Your task to perform on an android device: refresh tabs in the chrome app Image 0: 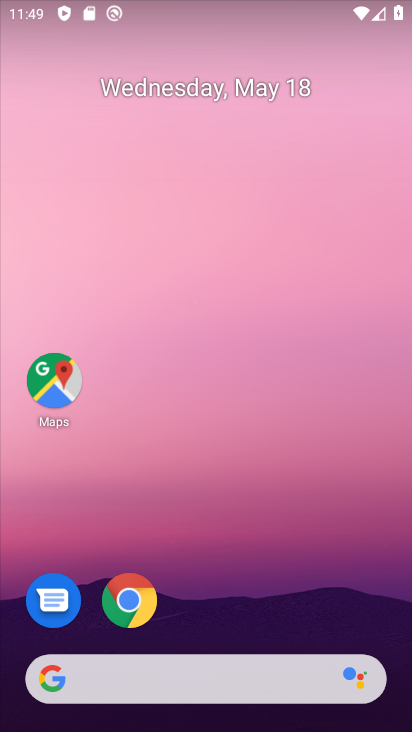
Step 0: click (127, 595)
Your task to perform on an android device: refresh tabs in the chrome app Image 1: 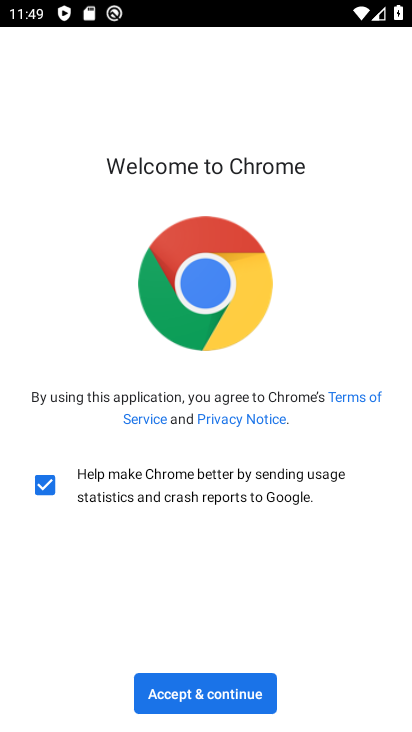
Step 1: click (207, 685)
Your task to perform on an android device: refresh tabs in the chrome app Image 2: 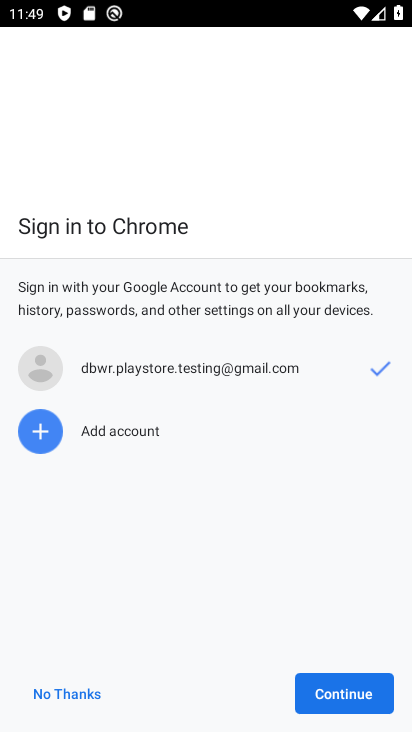
Step 2: click (367, 680)
Your task to perform on an android device: refresh tabs in the chrome app Image 3: 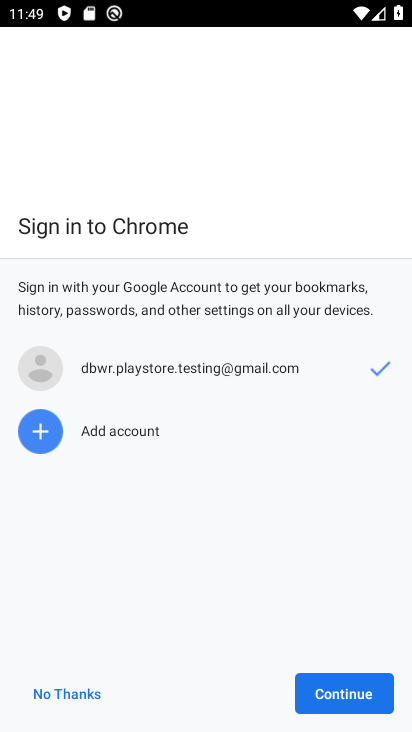
Step 3: click (367, 680)
Your task to perform on an android device: refresh tabs in the chrome app Image 4: 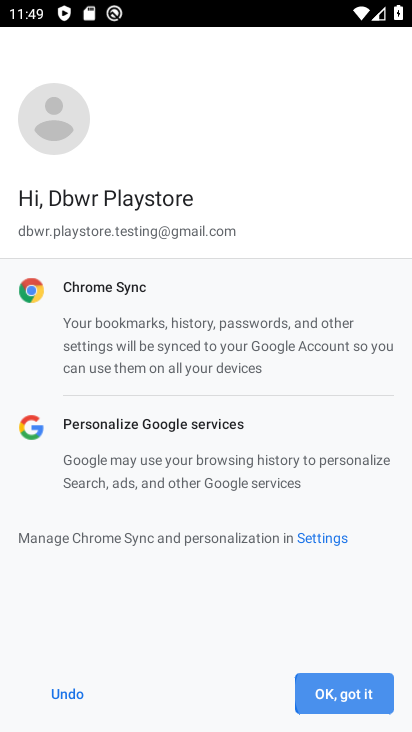
Step 4: click (367, 680)
Your task to perform on an android device: refresh tabs in the chrome app Image 5: 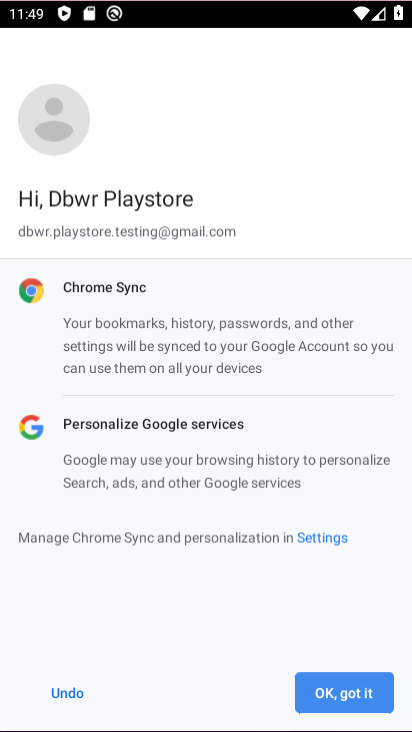
Step 5: click (367, 680)
Your task to perform on an android device: refresh tabs in the chrome app Image 6: 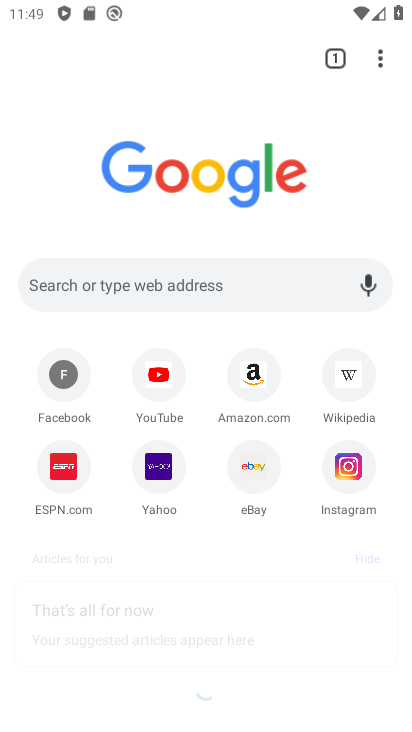
Step 6: click (396, 53)
Your task to perform on an android device: refresh tabs in the chrome app Image 7: 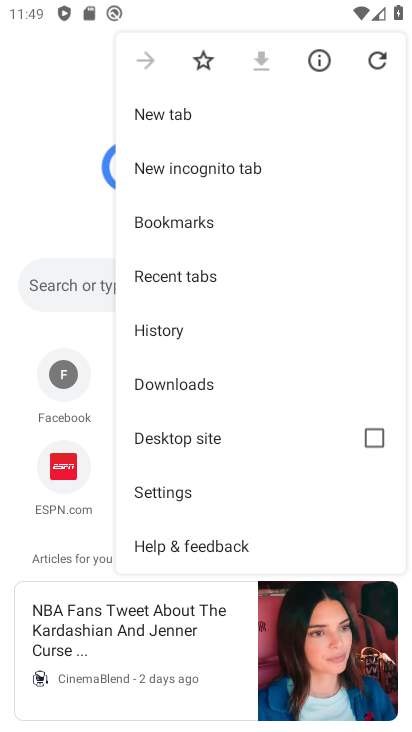
Step 7: click (378, 64)
Your task to perform on an android device: refresh tabs in the chrome app Image 8: 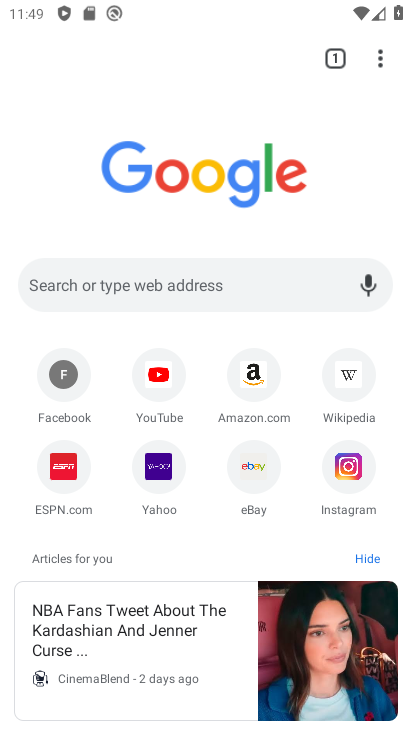
Step 8: task complete